Your task to perform on an android device: Go to ESPN.com Image 0: 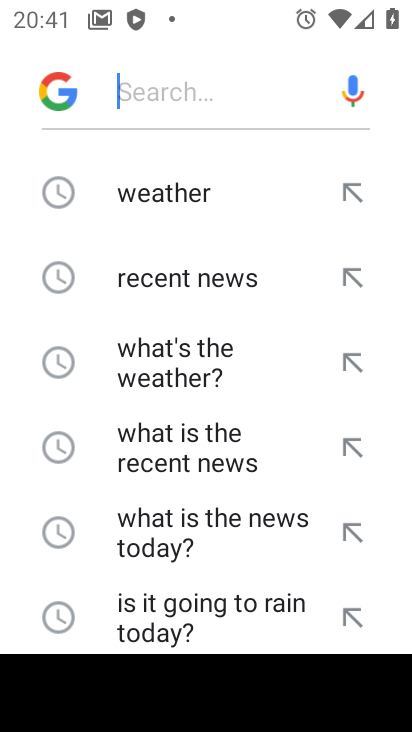
Step 0: press home button
Your task to perform on an android device: Go to ESPN.com Image 1: 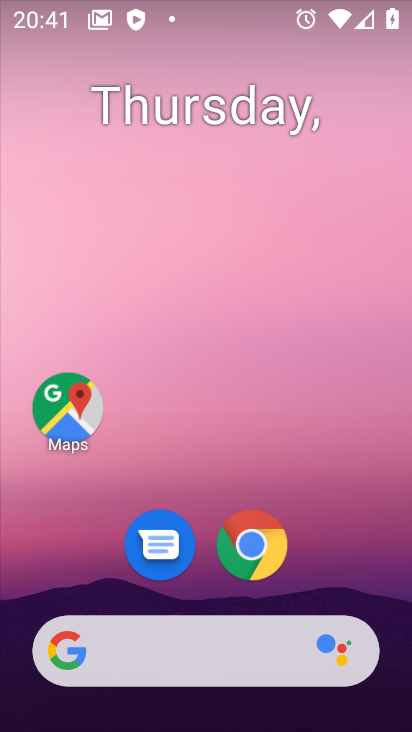
Step 1: click (253, 547)
Your task to perform on an android device: Go to ESPN.com Image 2: 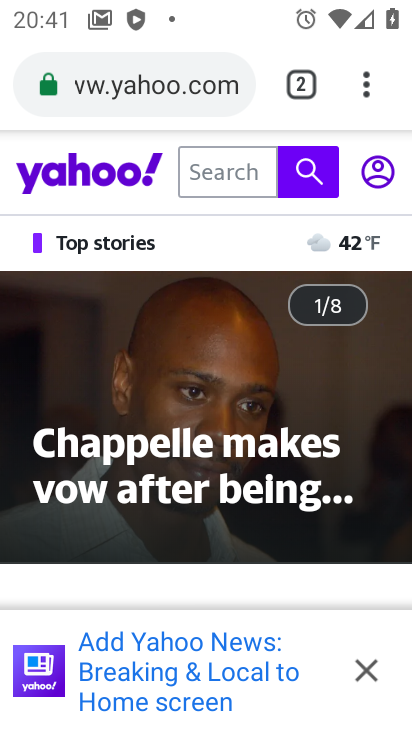
Step 2: click (349, 75)
Your task to perform on an android device: Go to ESPN.com Image 3: 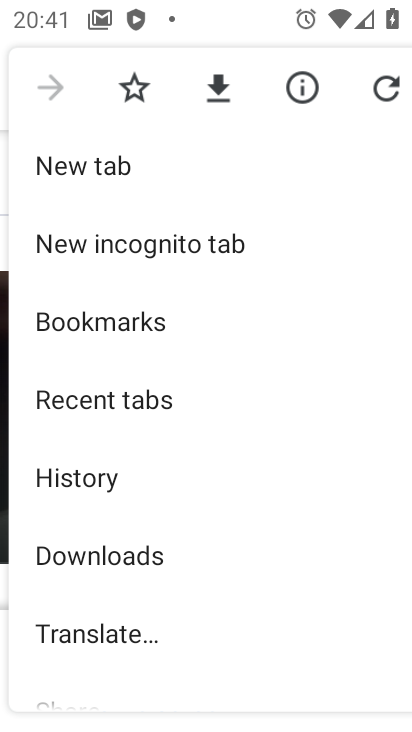
Step 3: click (86, 179)
Your task to perform on an android device: Go to ESPN.com Image 4: 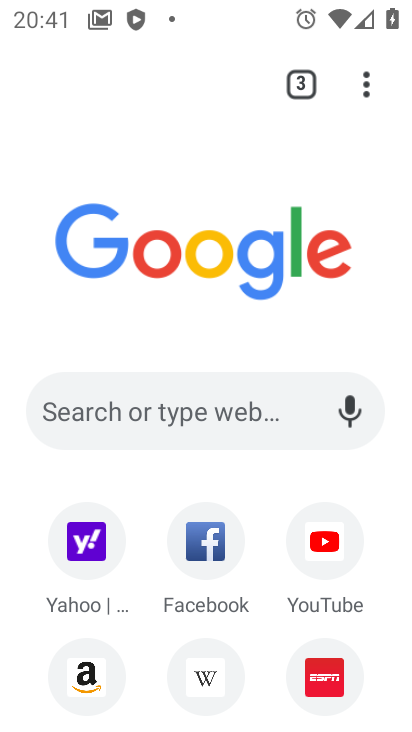
Step 4: click (313, 673)
Your task to perform on an android device: Go to ESPN.com Image 5: 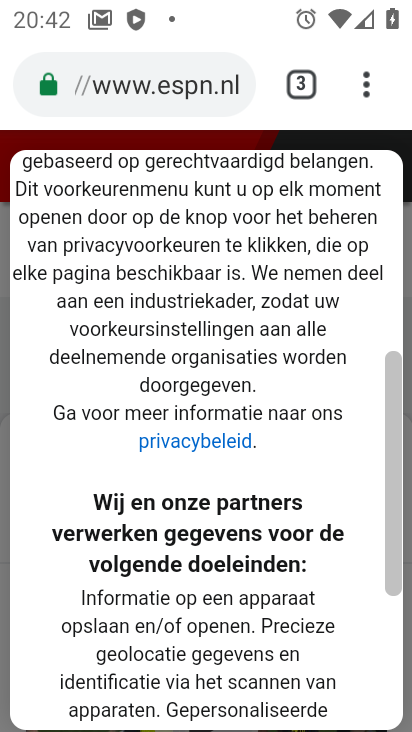
Step 5: task complete